Your task to perform on an android device: Check the weather Image 0: 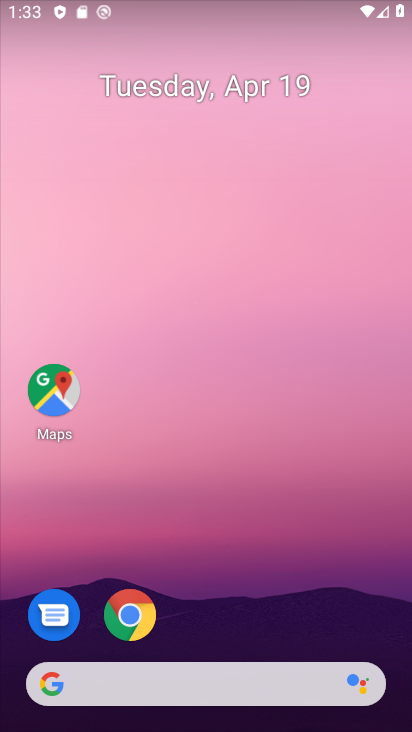
Step 0: drag from (217, 650) to (283, 247)
Your task to perform on an android device: Check the weather Image 1: 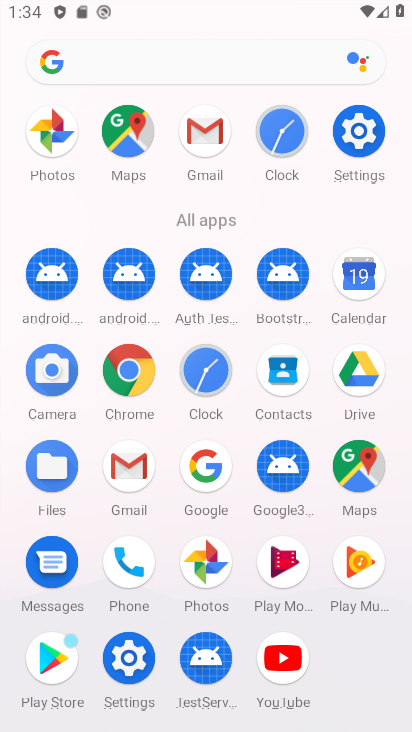
Step 1: click (130, 370)
Your task to perform on an android device: Check the weather Image 2: 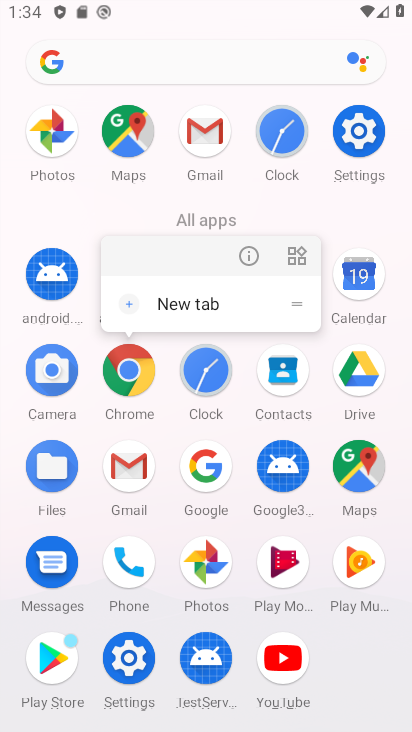
Step 2: click (245, 249)
Your task to perform on an android device: Check the weather Image 3: 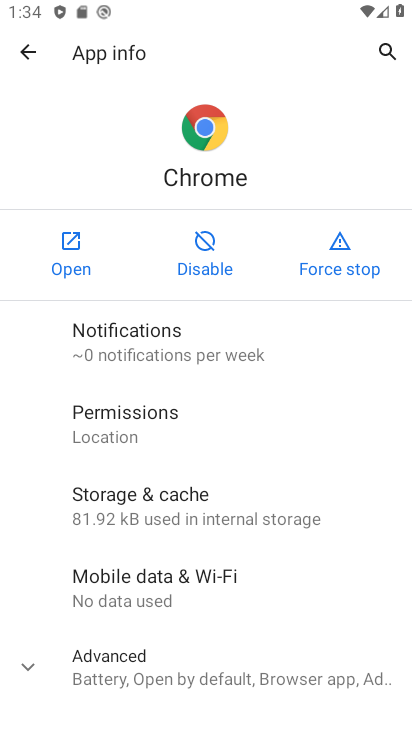
Step 3: click (70, 267)
Your task to perform on an android device: Check the weather Image 4: 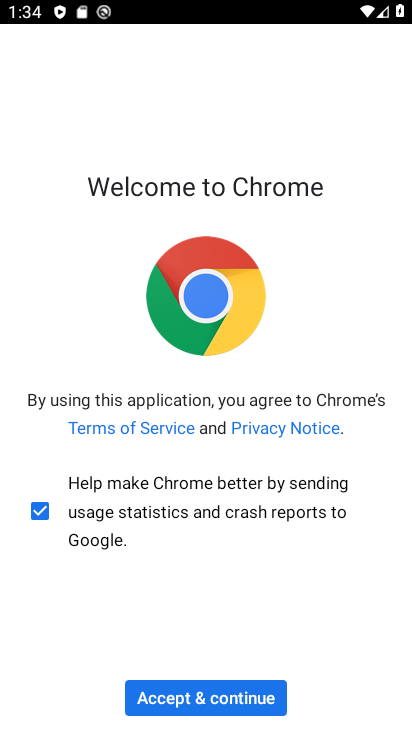
Step 4: click (192, 689)
Your task to perform on an android device: Check the weather Image 5: 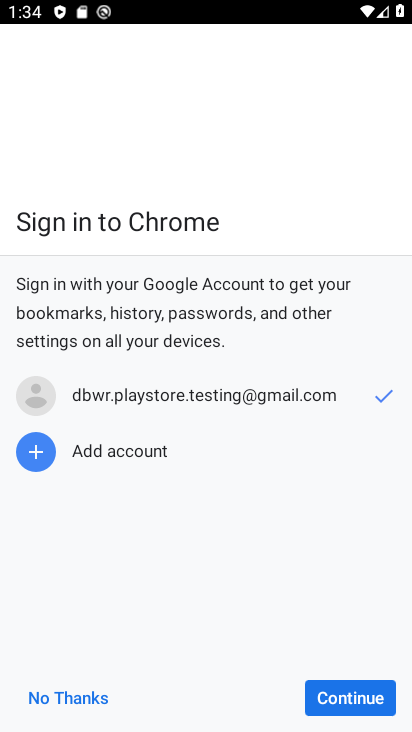
Step 5: click (84, 695)
Your task to perform on an android device: Check the weather Image 6: 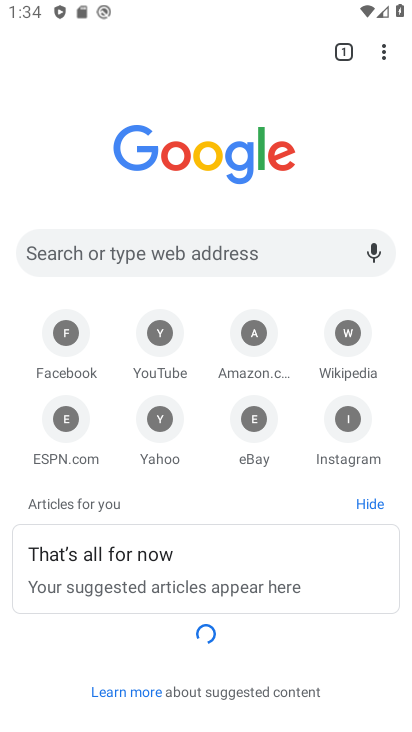
Step 6: click (182, 64)
Your task to perform on an android device: Check the weather Image 7: 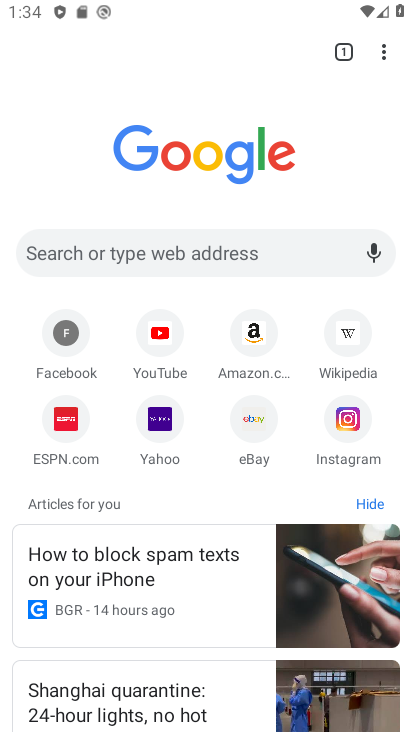
Step 7: click (168, 252)
Your task to perform on an android device: Check the weather Image 8: 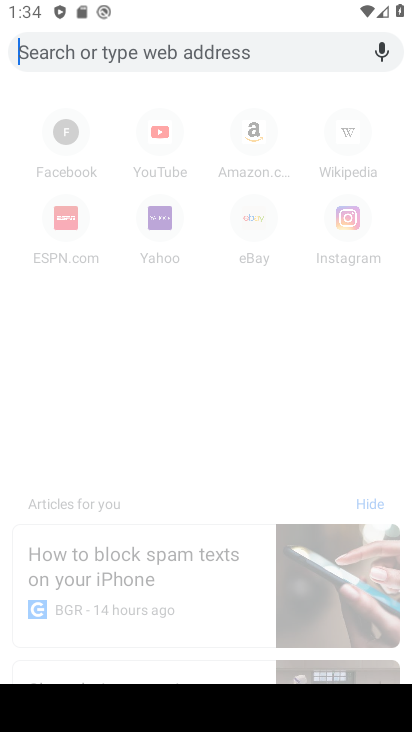
Step 8: type "waether "
Your task to perform on an android device: Check the weather Image 9: 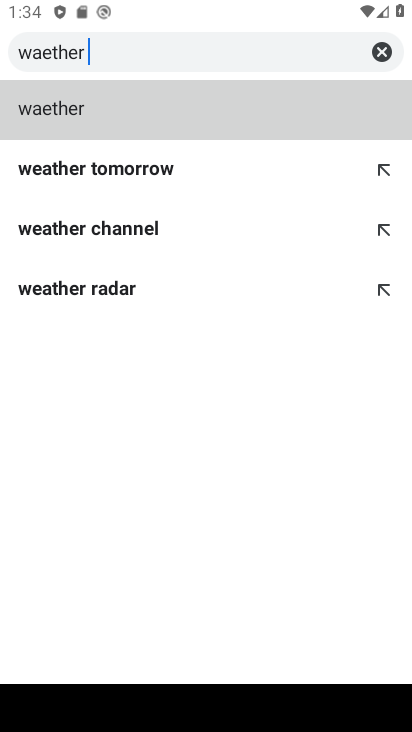
Step 9: click (41, 103)
Your task to perform on an android device: Check the weather Image 10: 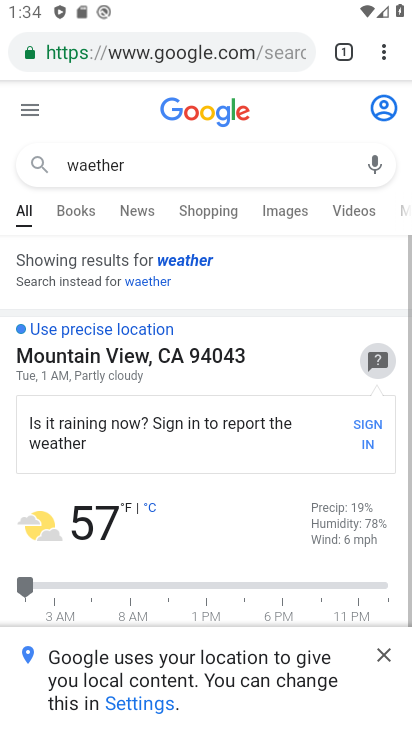
Step 10: task complete